Your task to perform on an android device: Open the web browser Image 0: 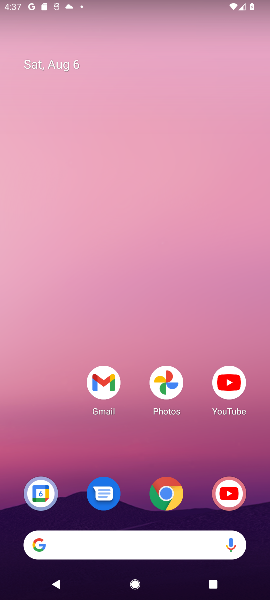
Step 0: drag from (186, 445) to (186, 192)
Your task to perform on an android device: Open the web browser Image 1: 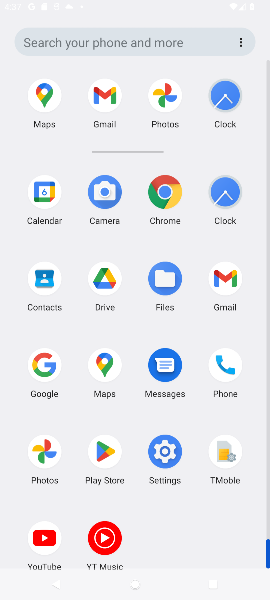
Step 1: drag from (176, 393) to (176, 166)
Your task to perform on an android device: Open the web browser Image 2: 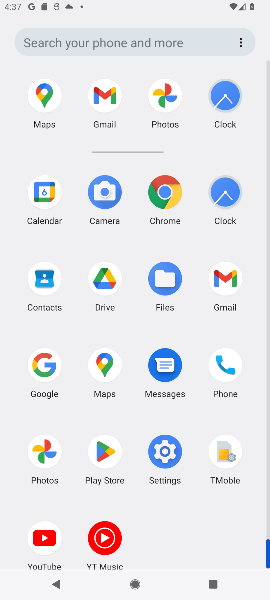
Step 2: click (165, 190)
Your task to perform on an android device: Open the web browser Image 3: 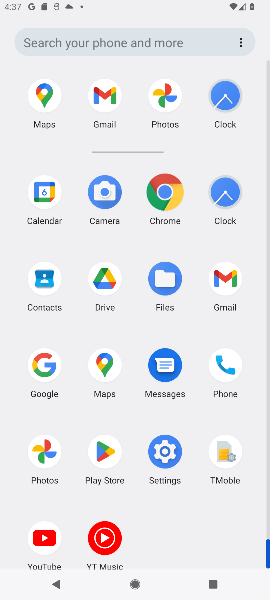
Step 3: click (165, 190)
Your task to perform on an android device: Open the web browser Image 4: 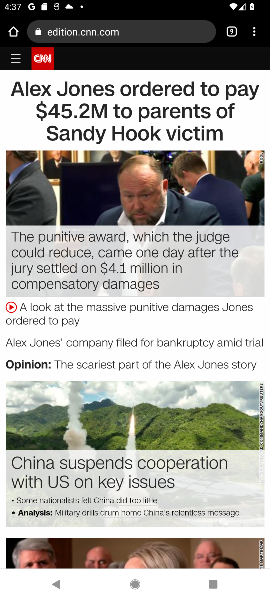
Step 4: task complete